Your task to perform on an android device: Go to ESPN.com Image 0: 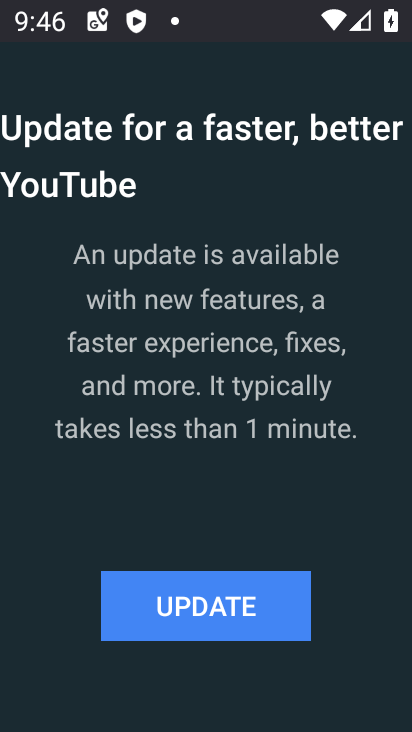
Step 0: press home button
Your task to perform on an android device: Go to ESPN.com Image 1: 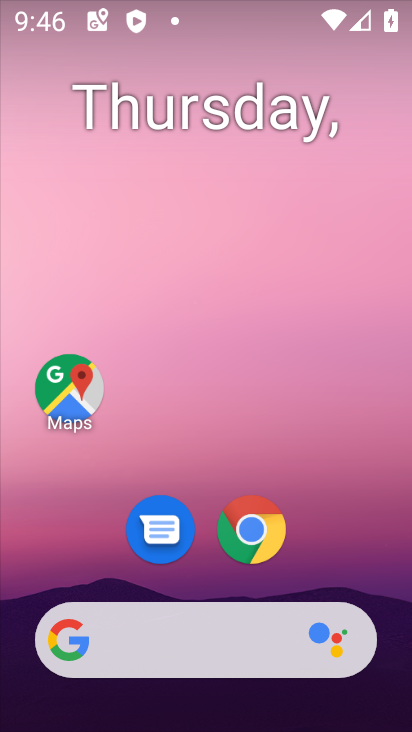
Step 1: click (270, 636)
Your task to perform on an android device: Go to ESPN.com Image 2: 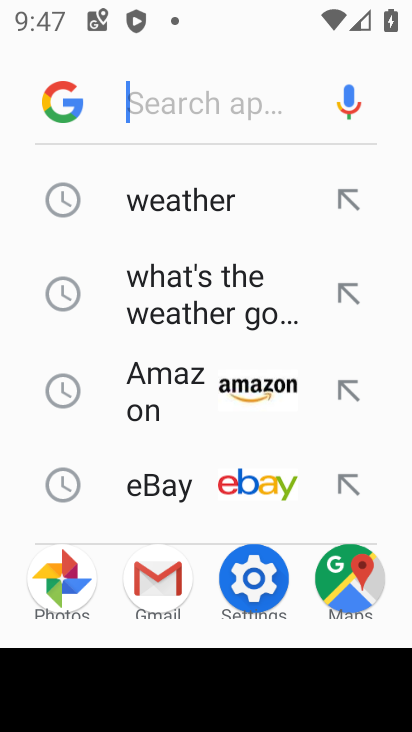
Step 2: type "espn.com"
Your task to perform on an android device: Go to ESPN.com Image 3: 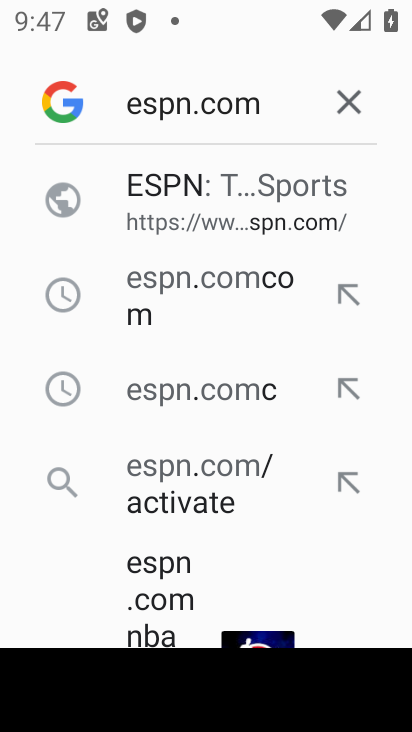
Step 3: click (242, 198)
Your task to perform on an android device: Go to ESPN.com Image 4: 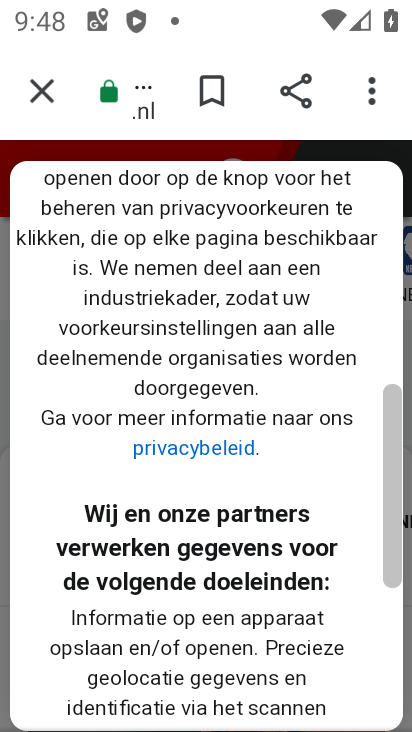
Step 4: task complete